Your task to perform on an android device: Open ESPN.com Image 0: 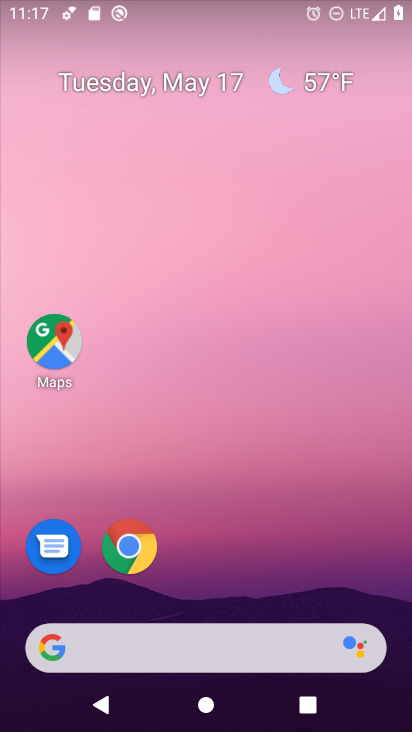
Step 0: click (116, 548)
Your task to perform on an android device: Open ESPN.com Image 1: 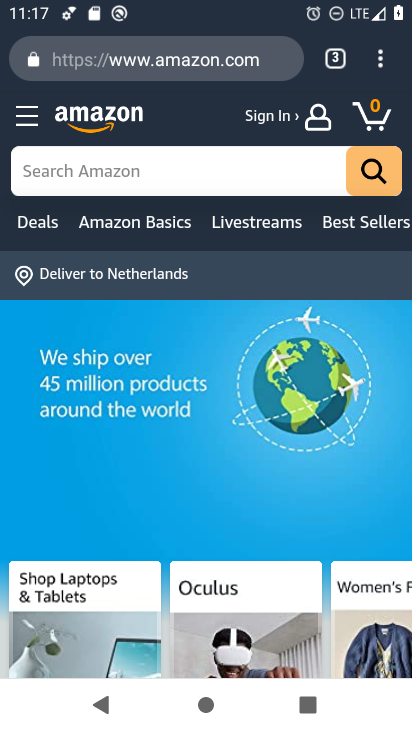
Step 1: click (114, 61)
Your task to perform on an android device: Open ESPN.com Image 2: 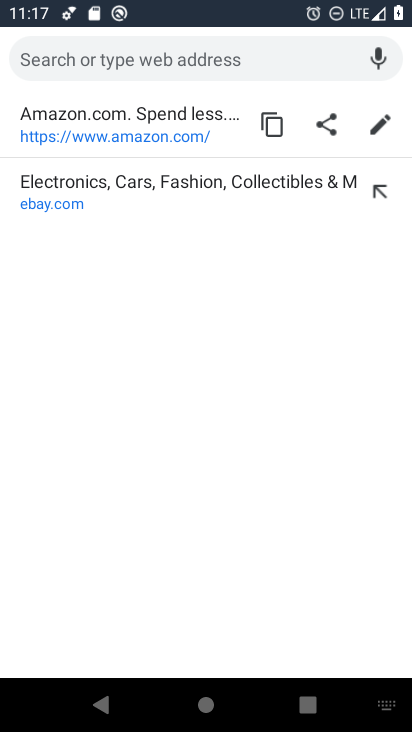
Step 2: type "espn.com"
Your task to perform on an android device: Open ESPN.com Image 3: 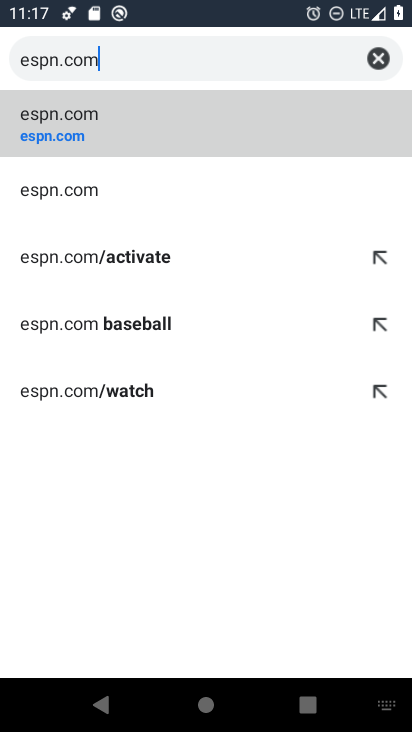
Step 3: click (60, 136)
Your task to perform on an android device: Open ESPN.com Image 4: 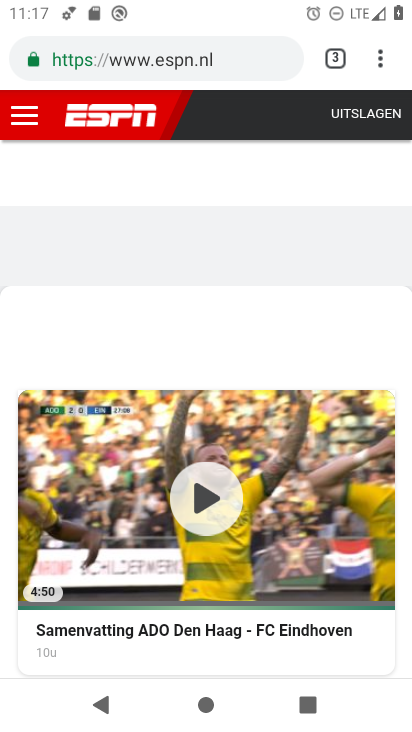
Step 4: task complete